Your task to perform on an android device: star an email in the gmail app Image 0: 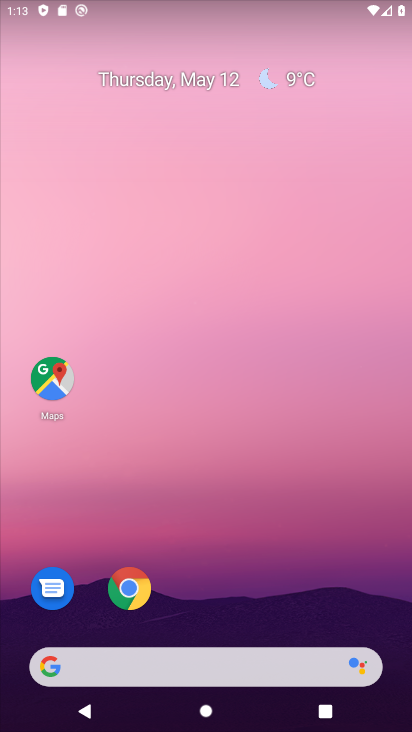
Step 0: drag from (228, 622) to (316, 138)
Your task to perform on an android device: star an email in the gmail app Image 1: 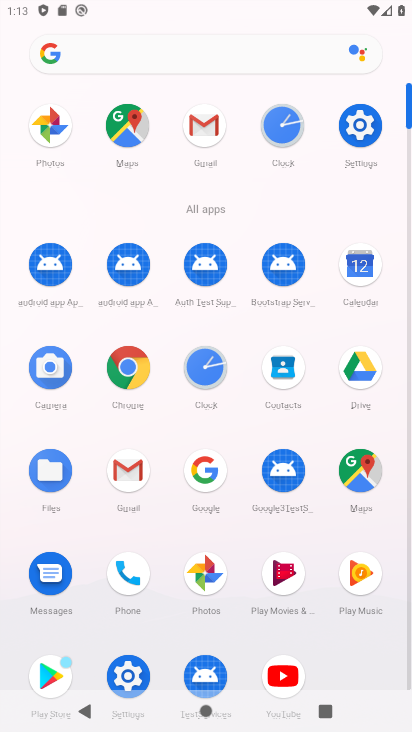
Step 1: click (122, 480)
Your task to perform on an android device: star an email in the gmail app Image 2: 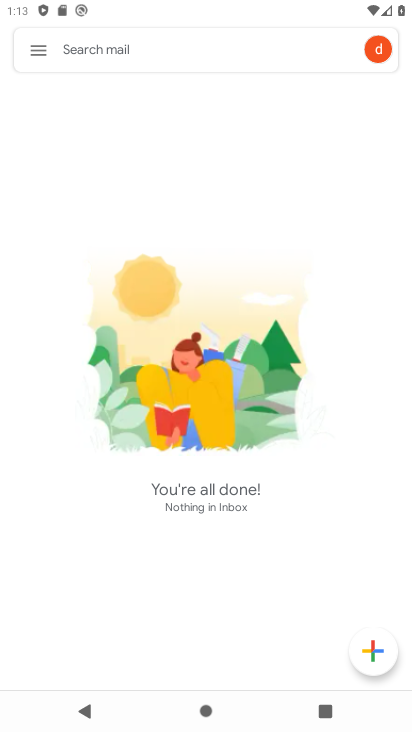
Step 2: click (40, 57)
Your task to perform on an android device: star an email in the gmail app Image 3: 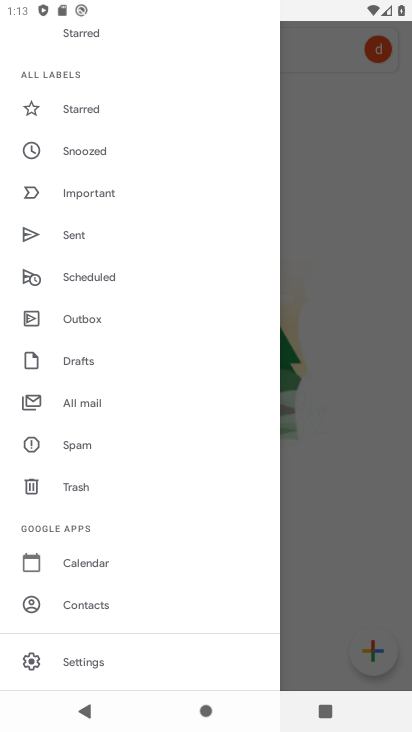
Step 3: click (124, 413)
Your task to perform on an android device: star an email in the gmail app Image 4: 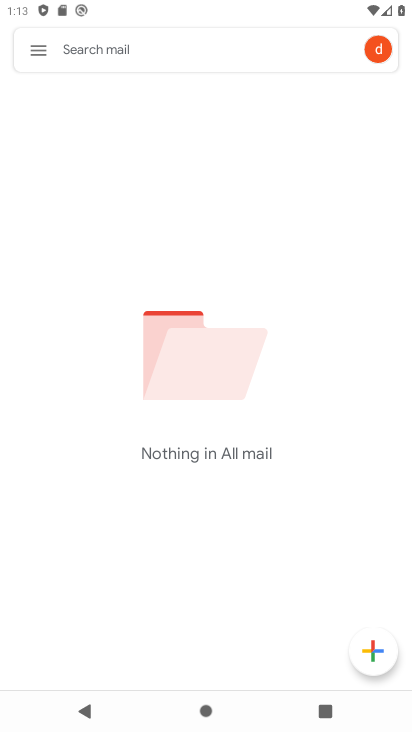
Step 4: task complete